Your task to perform on an android device: toggle airplane mode Image 0: 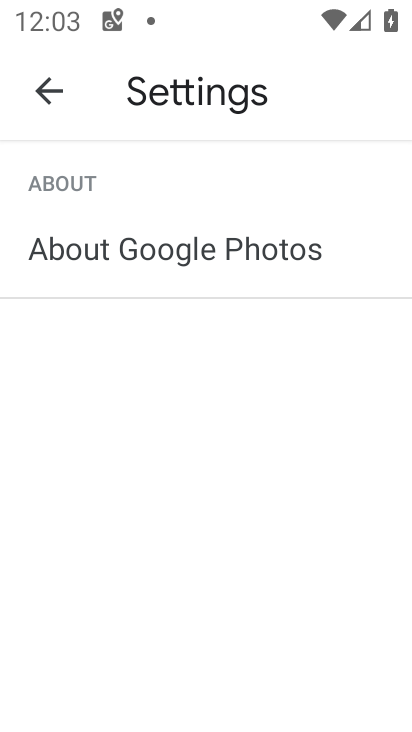
Step 0: click (67, 86)
Your task to perform on an android device: toggle airplane mode Image 1: 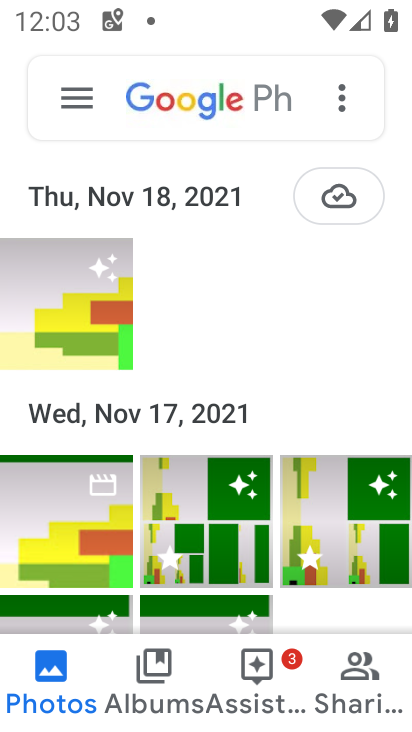
Step 1: press home button
Your task to perform on an android device: toggle airplane mode Image 2: 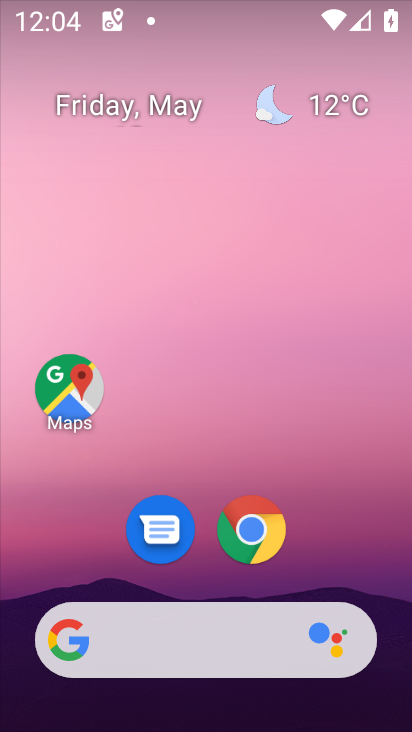
Step 2: drag from (319, 583) to (289, 245)
Your task to perform on an android device: toggle airplane mode Image 3: 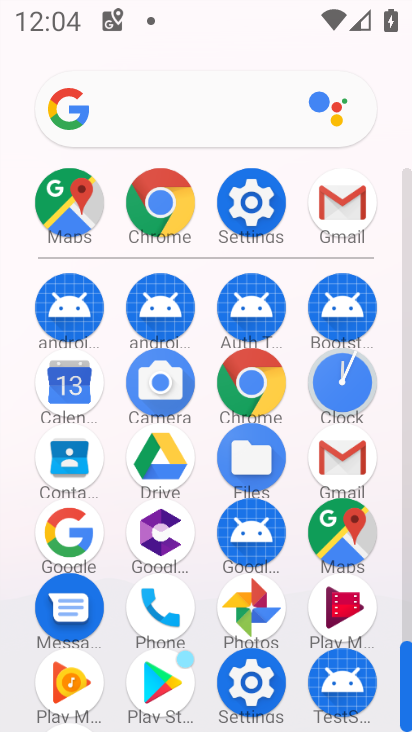
Step 3: click (246, 184)
Your task to perform on an android device: toggle airplane mode Image 4: 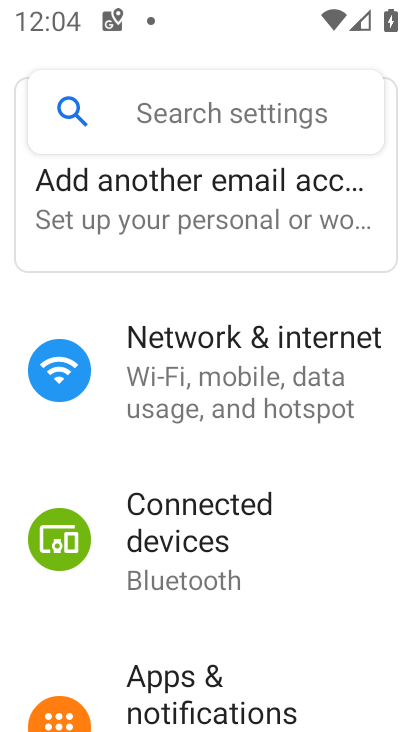
Step 4: click (216, 357)
Your task to perform on an android device: toggle airplane mode Image 5: 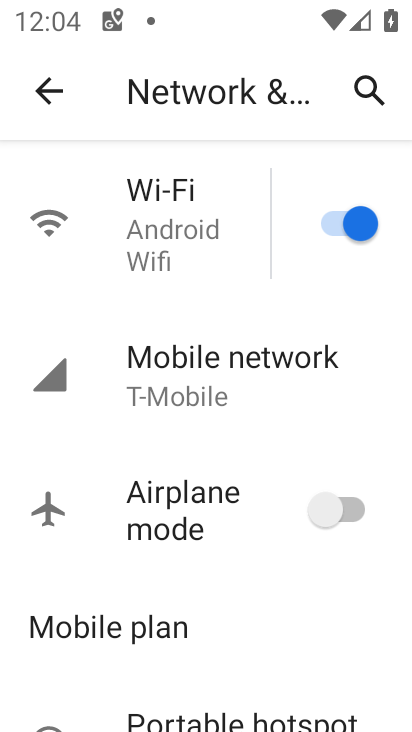
Step 5: click (338, 490)
Your task to perform on an android device: toggle airplane mode Image 6: 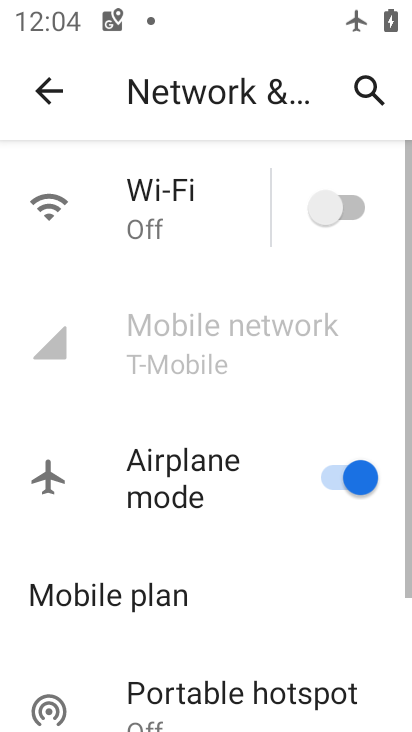
Step 6: task complete